Your task to perform on an android device: turn vacation reply on in the gmail app Image 0: 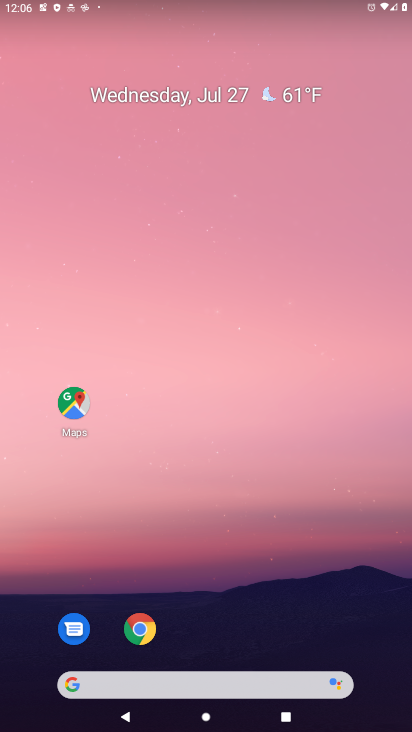
Step 0: drag from (225, 653) to (211, 290)
Your task to perform on an android device: turn vacation reply on in the gmail app Image 1: 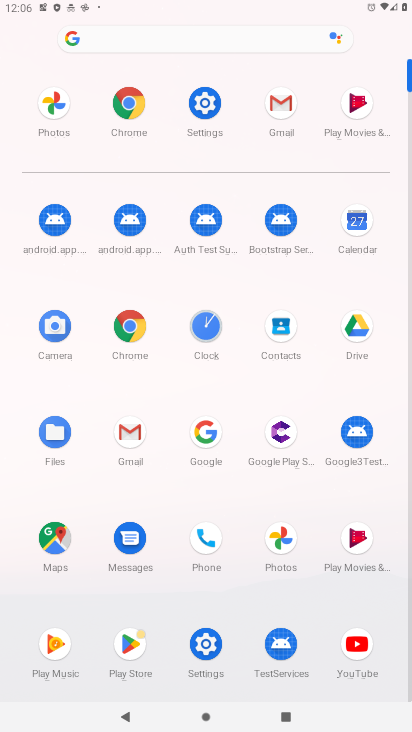
Step 1: click (278, 123)
Your task to perform on an android device: turn vacation reply on in the gmail app Image 2: 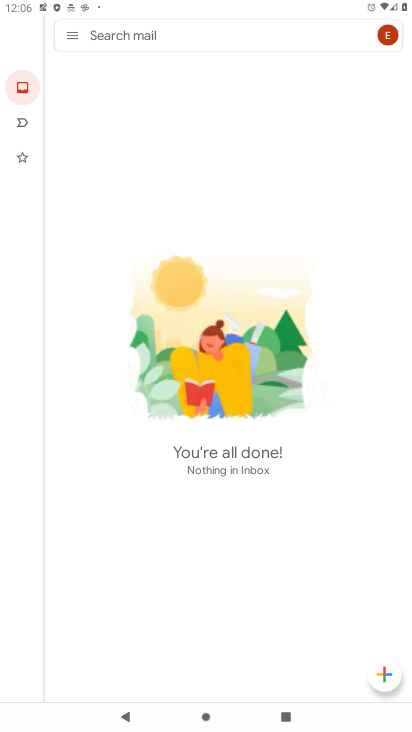
Step 2: click (70, 39)
Your task to perform on an android device: turn vacation reply on in the gmail app Image 3: 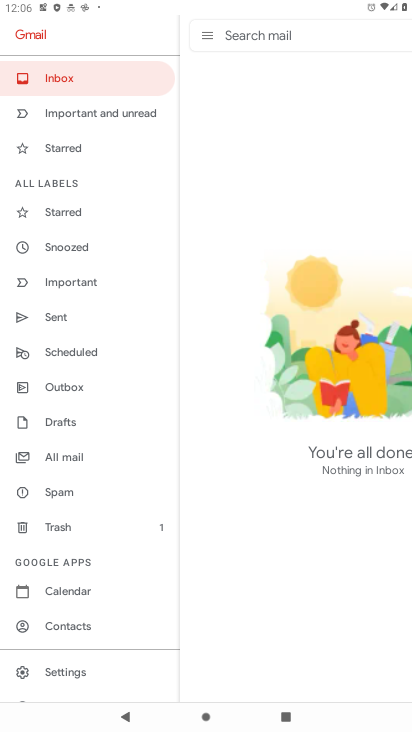
Step 3: click (74, 669)
Your task to perform on an android device: turn vacation reply on in the gmail app Image 4: 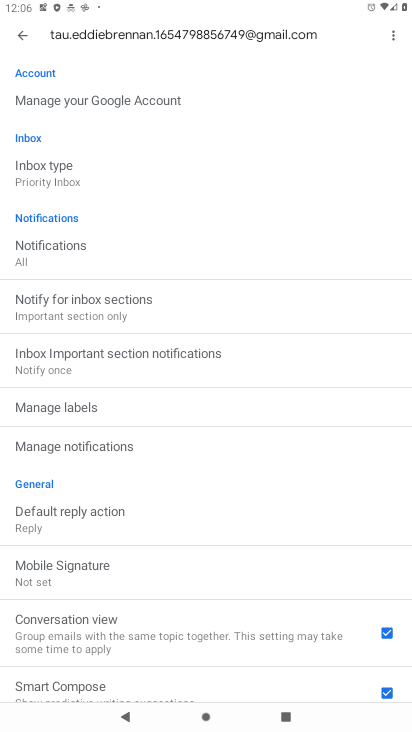
Step 4: task complete